Your task to perform on an android device: turn pop-ups on in chrome Image 0: 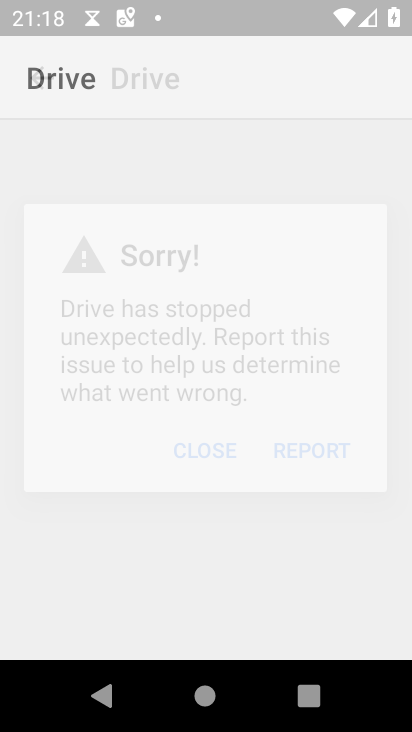
Step 0: press home button
Your task to perform on an android device: turn pop-ups on in chrome Image 1: 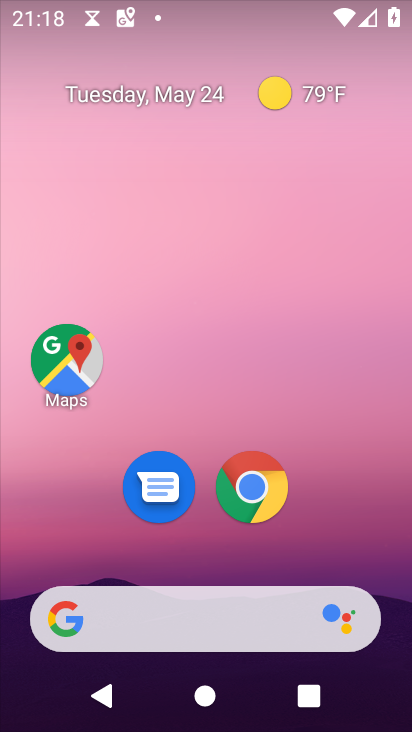
Step 1: drag from (358, 554) to (326, 7)
Your task to perform on an android device: turn pop-ups on in chrome Image 2: 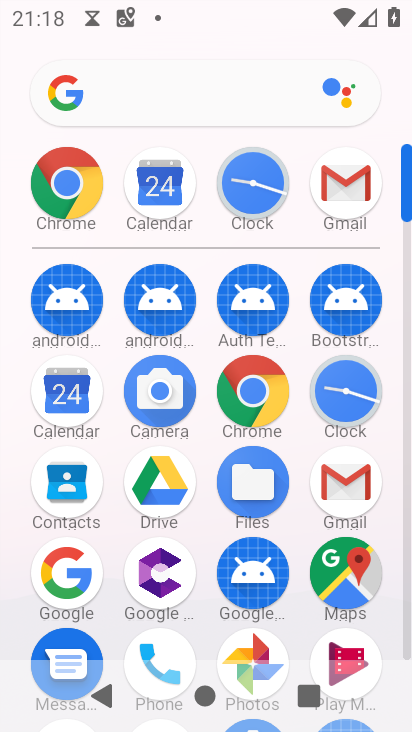
Step 2: click (231, 375)
Your task to perform on an android device: turn pop-ups on in chrome Image 3: 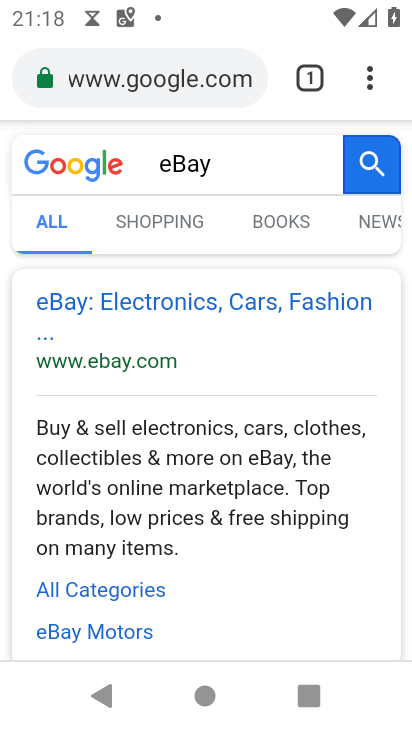
Step 3: drag from (374, 78) to (151, 550)
Your task to perform on an android device: turn pop-ups on in chrome Image 4: 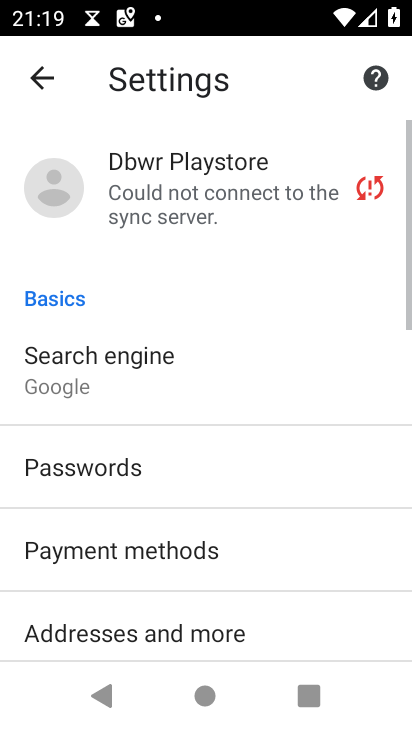
Step 4: drag from (195, 585) to (243, 96)
Your task to perform on an android device: turn pop-ups on in chrome Image 5: 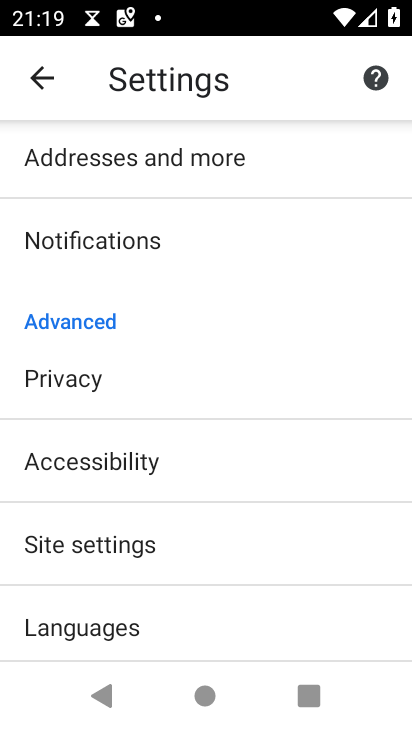
Step 5: click (134, 551)
Your task to perform on an android device: turn pop-ups on in chrome Image 6: 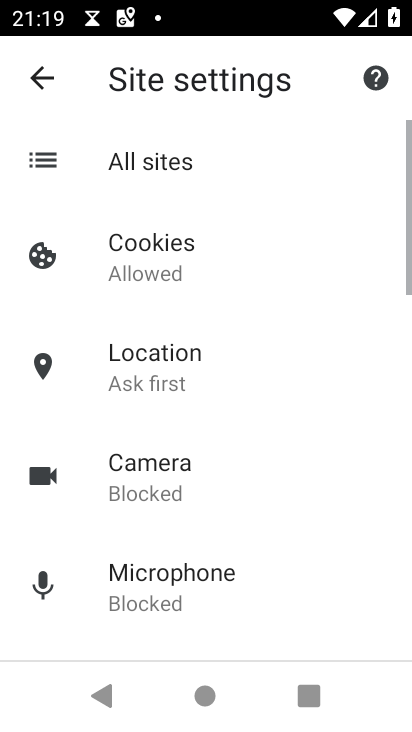
Step 6: drag from (192, 616) to (195, 132)
Your task to perform on an android device: turn pop-ups on in chrome Image 7: 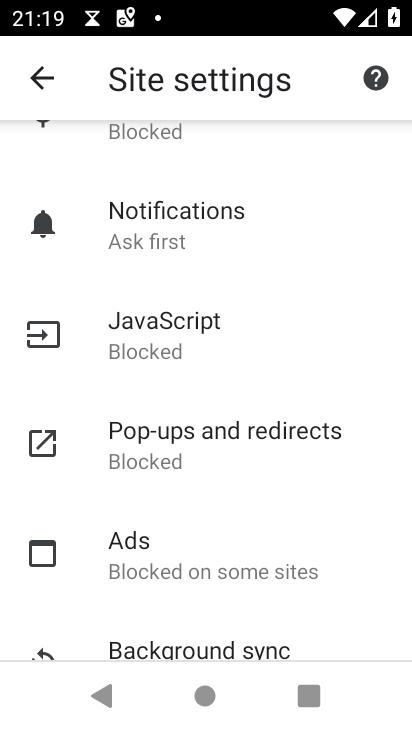
Step 7: click (134, 456)
Your task to perform on an android device: turn pop-ups on in chrome Image 8: 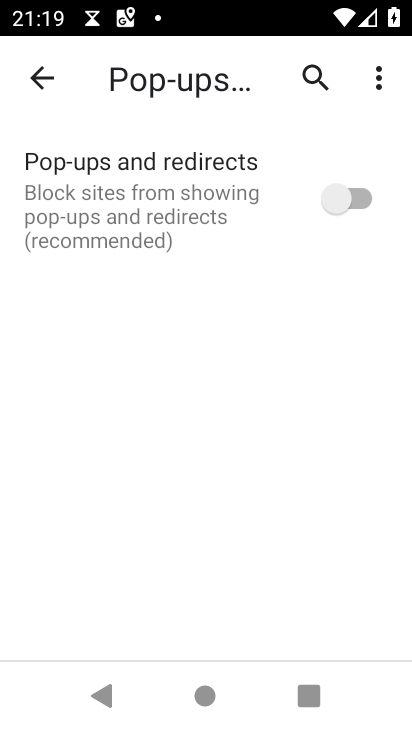
Step 8: click (301, 203)
Your task to perform on an android device: turn pop-ups on in chrome Image 9: 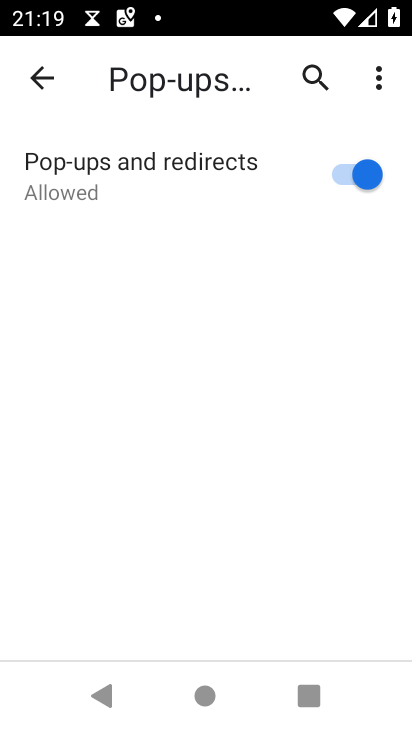
Step 9: task complete